Your task to perform on an android device: remove spam from my inbox in the gmail app Image 0: 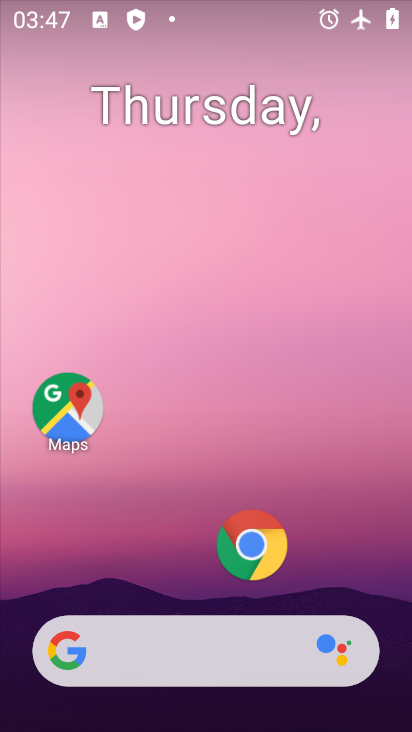
Step 0: drag from (127, 645) to (229, 4)
Your task to perform on an android device: remove spam from my inbox in the gmail app Image 1: 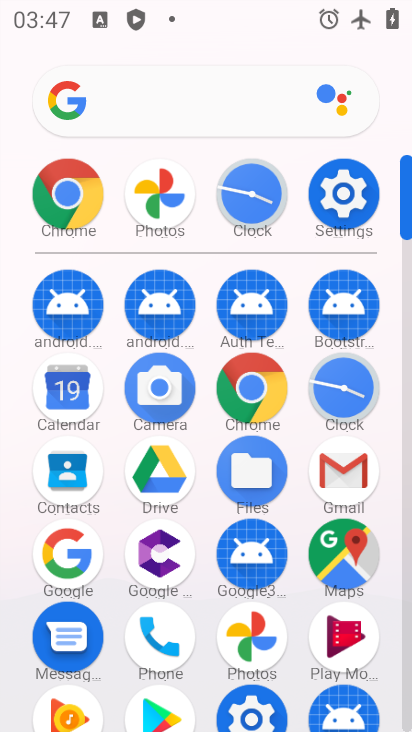
Step 1: click (349, 460)
Your task to perform on an android device: remove spam from my inbox in the gmail app Image 2: 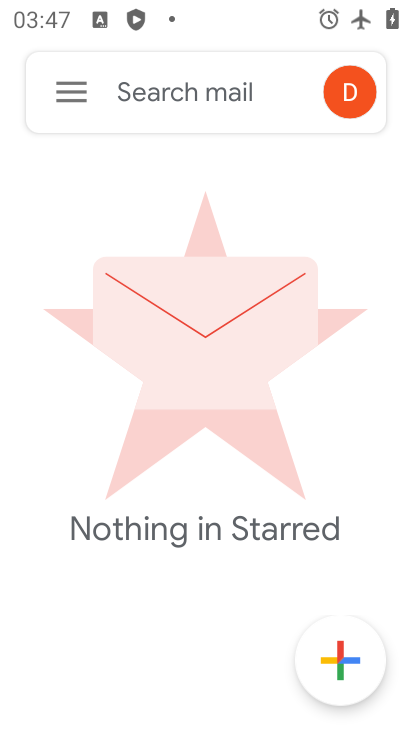
Step 2: click (73, 98)
Your task to perform on an android device: remove spam from my inbox in the gmail app Image 3: 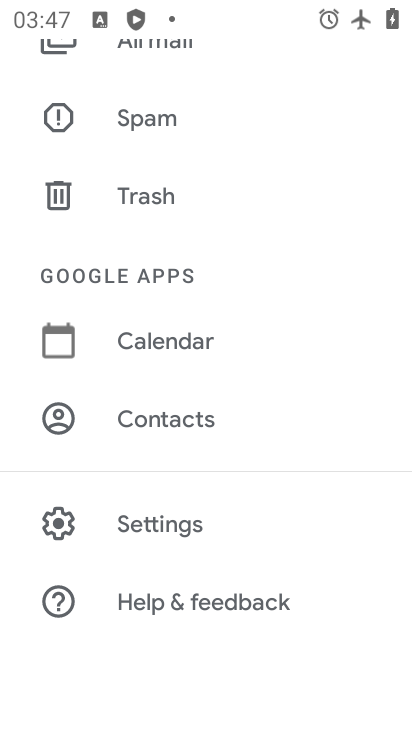
Step 3: click (177, 135)
Your task to perform on an android device: remove spam from my inbox in the gmail app Image 4: 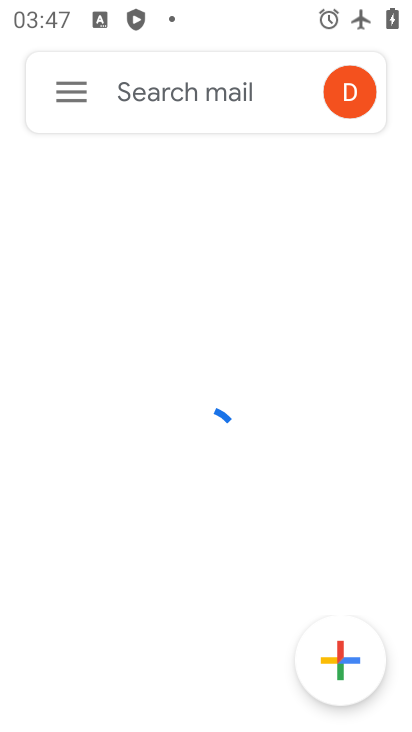
Step 4: task complete